Your task to perform on an android device: Go to battery settings Image 0: 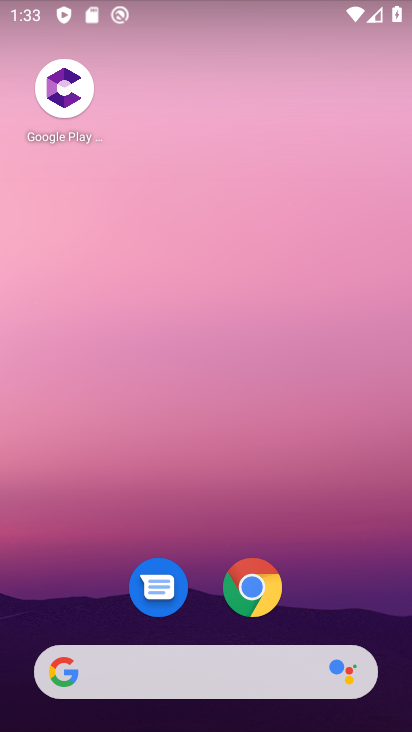
Step 0: drag from (330, 626) to (296, 36)
Your task to perform on an android device: Go to battery settings Image 1: 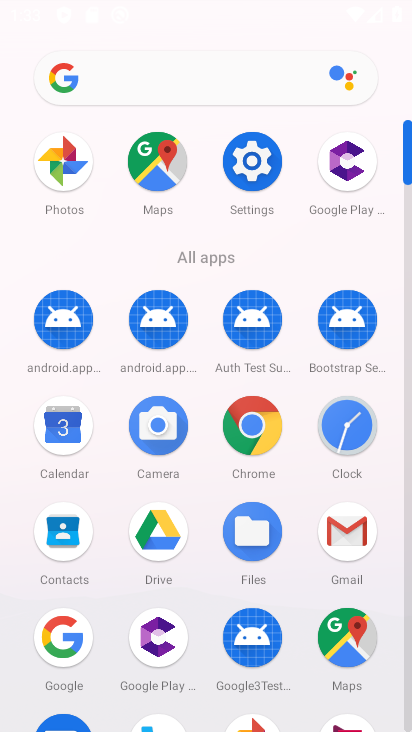
Step 1: click (236, 151)
Your task to perform on an android device: Go to battery settings Image 2: 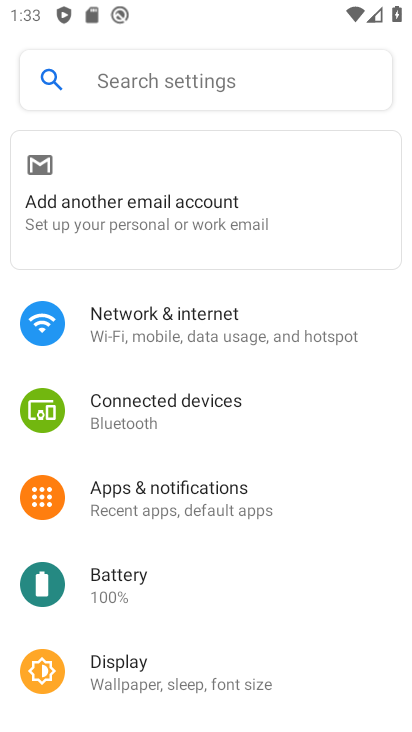
Step 2: click (129, 597)
Your task to perform on an android device: Go to battery settings Image 3: 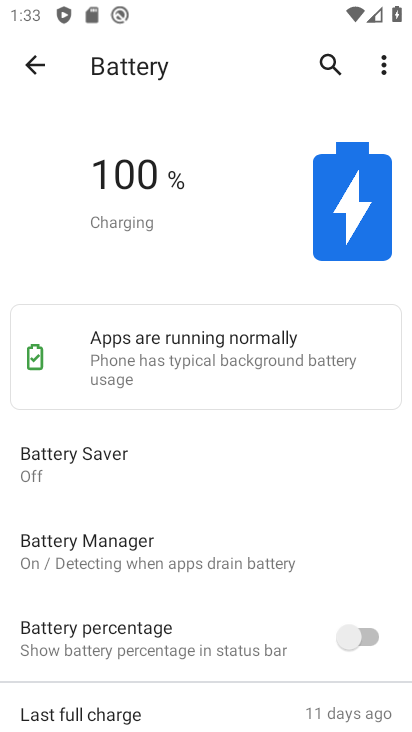
Step 3: task complete